Your task to perform on an android device: change the upload size in google photos Image 0: 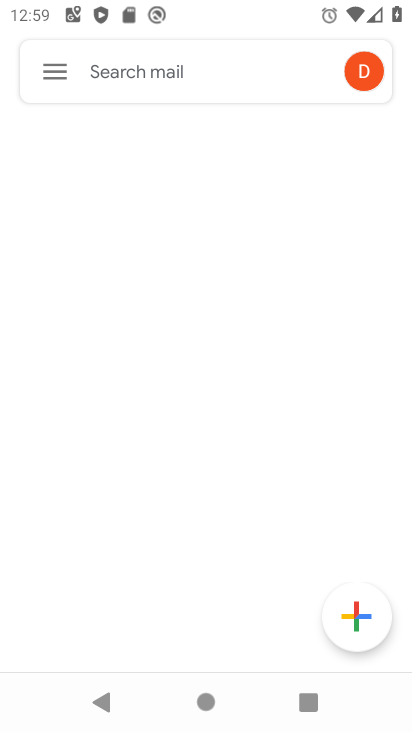
Step 0: press home button
Your task to perform on an android device: change the upload size in google photos Image 1: 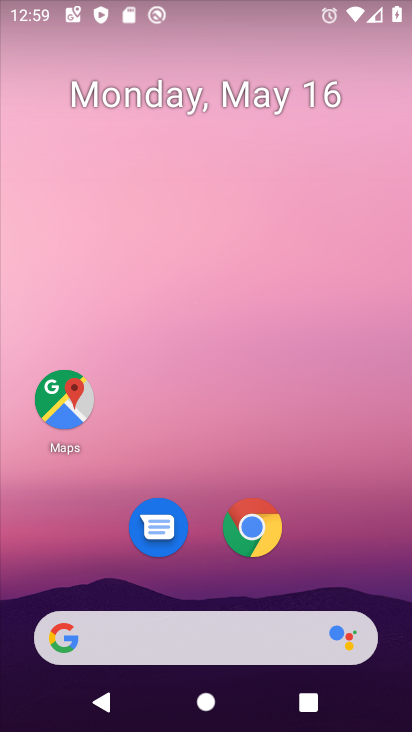
Step 1: drag from (286, 435) to (275, 42)
Your task to perform on an android device: change the upload size in google photos Image 2: 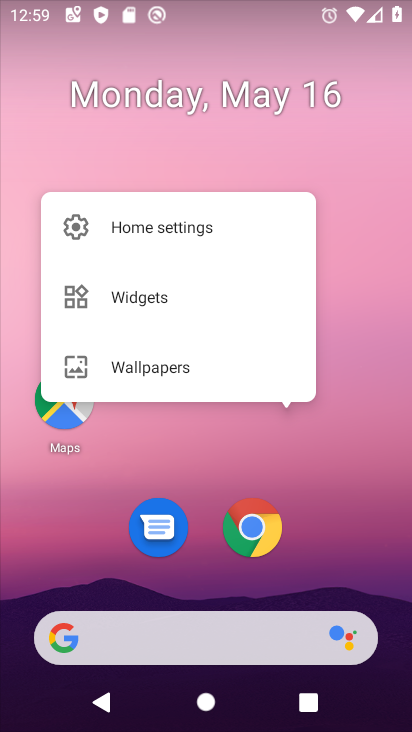
Step 2: click (337, 429)
Your task to perform on an android device: change the upload size in google photos Image 3: 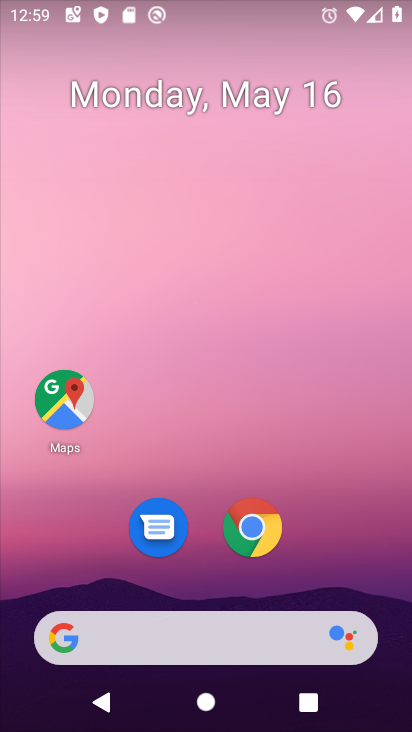
Step 3: drag from (337, 429) to (344, 68)
Your task to perform on an android device: change the upload size in google photos Image 4: 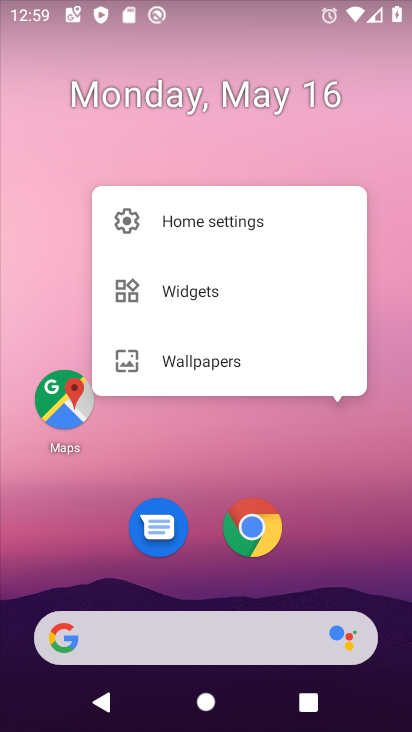
Step 4: click (247, 453)
Your task to perform on an android device: change the upload size in google photos Image 5: 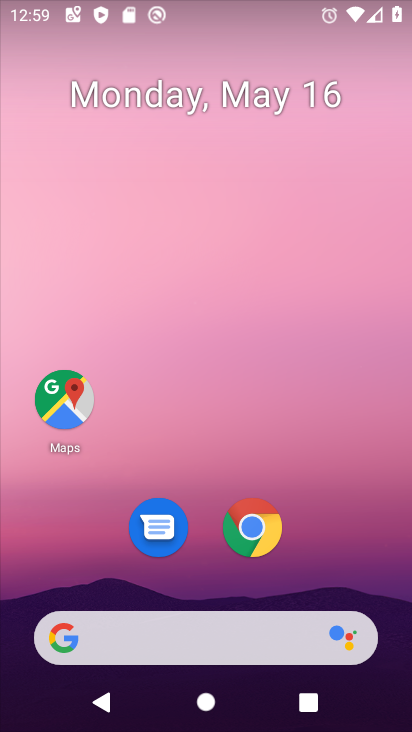
Step 5: drag from (247, 453) to (325, 80)
Your task to perform on an android device: change the upload size in google photos Image 6: 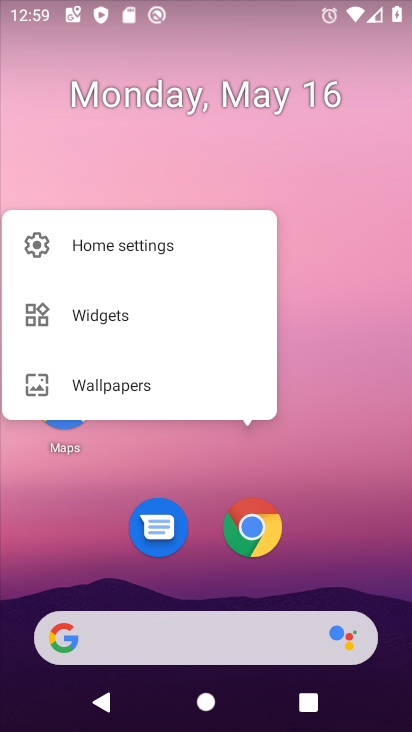
Step 6: drag from (345, 452) to (359, 112)
Your task to perform on an android device: change the upload size in google photos Image 7: 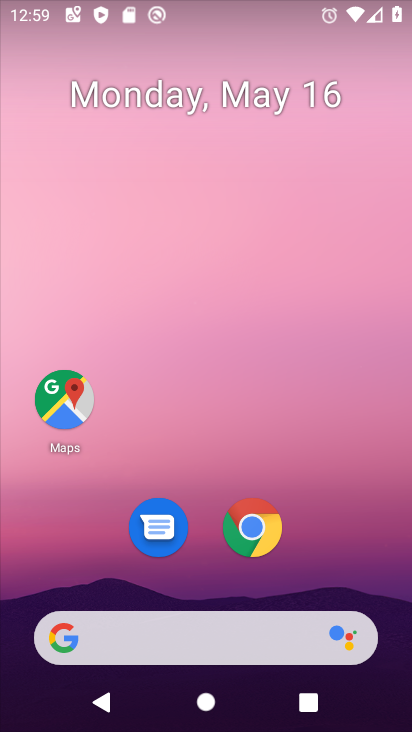
Step 7: drag from (348, 383) to (335, 120)
Your task to perform on an android device: change the upload size in google photos Image 8: 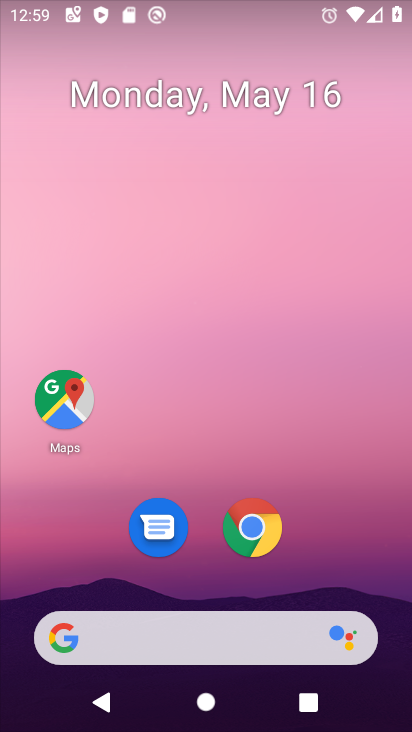
Step 8: drag from (336, 458) to (335, 50)
Your task to perform on an android device: change the upload size in google photos Image 9: 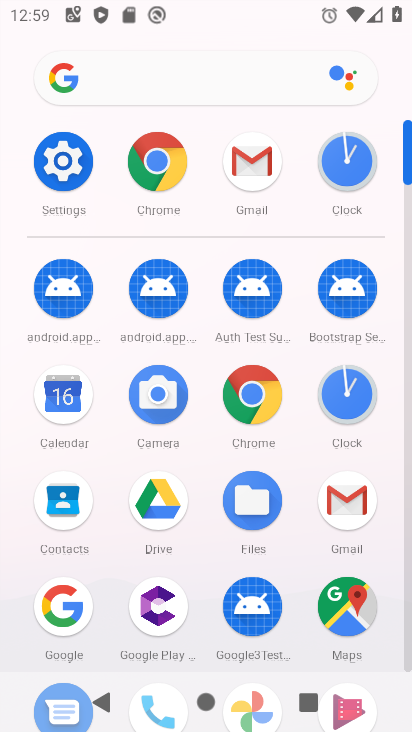
Step 9: click (407, 655)
Your task to perform on an android device: change the upload size in google photos Image 10: 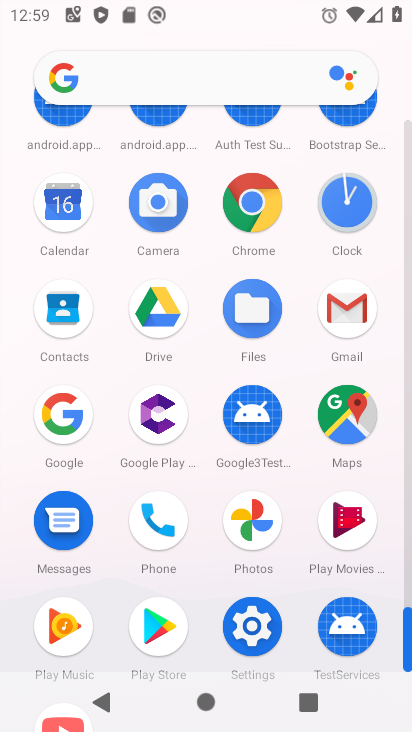
Step 10: click (261, 544)
Your task to perform on an android device: change the upload size in google photos Image 11: 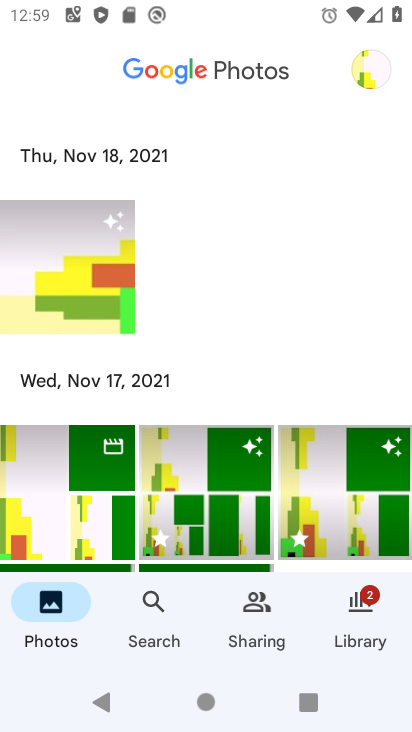
Step 11: click (363, 602)
Your task to perform on an android device: change the upload size in google photos Image 12: 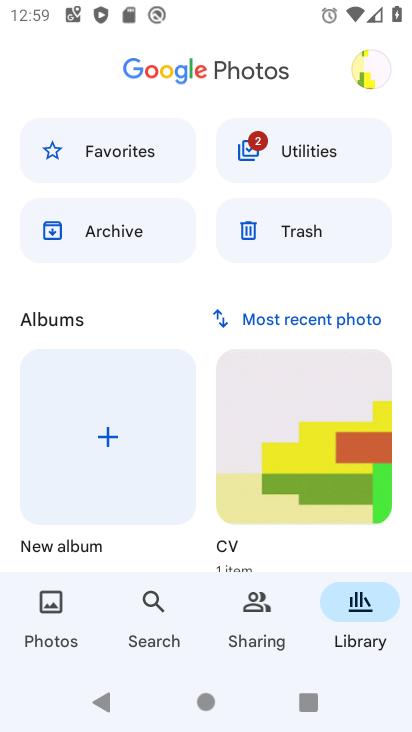
Step 12: click (363, 82)
Your task to perform on an android device: change the upload size in google photos Image 13: 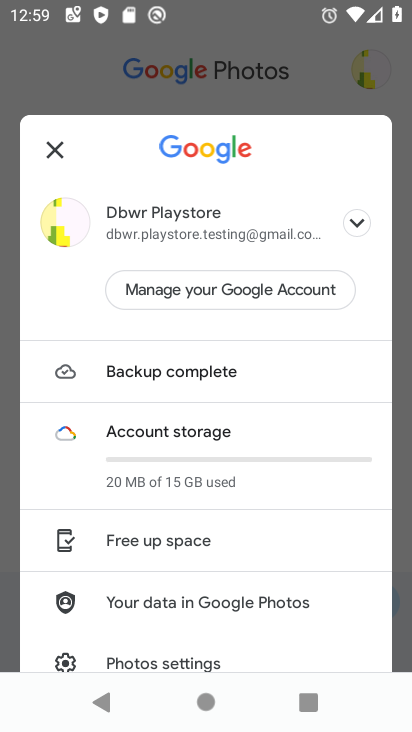
Step 13: drag from (243, 563) to (307, 258)
Your task to perform on an android device: change the upload size in google photos Image 14: 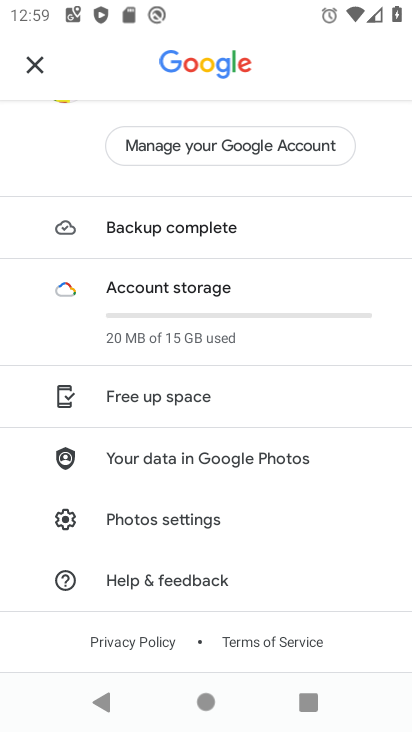
Step 14: click (214, 527)
Your task to perform on an android device: change the upload size in google photos Image 15: 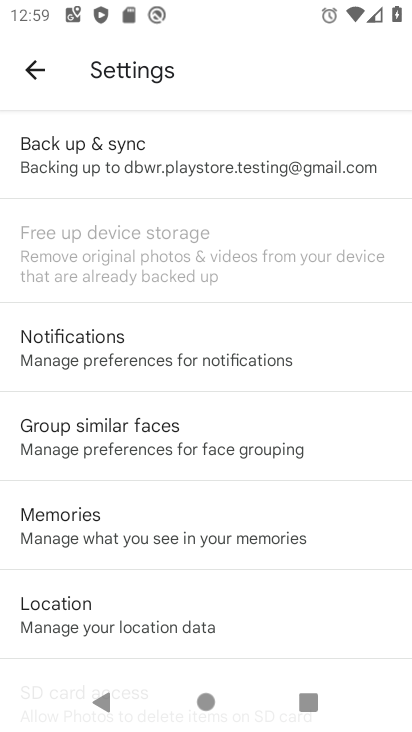
Step 15: click (110, 153)
Your task to perform on an android device: change the upload size in google photos Image 16: 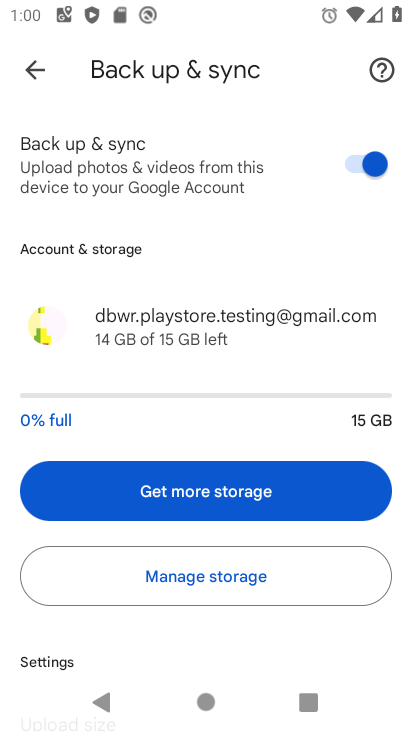
Step 16: click (140, 149)
Your task to perform on an android device: change the upload size in google photos Image 17: 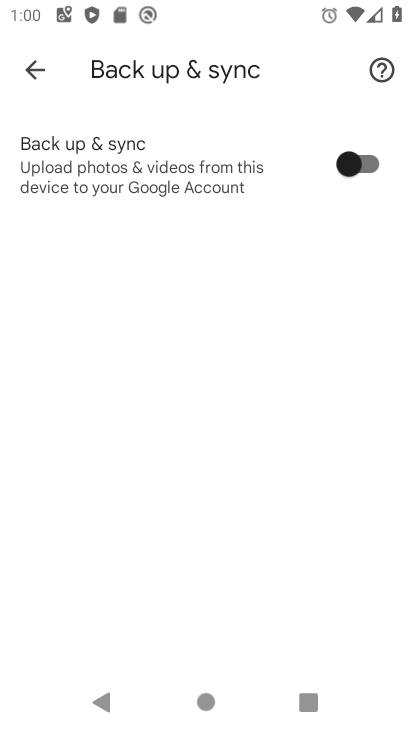
Step 17: click (140, 149)
Your task to perform on an android device: change the upload size in google photos Image 18: 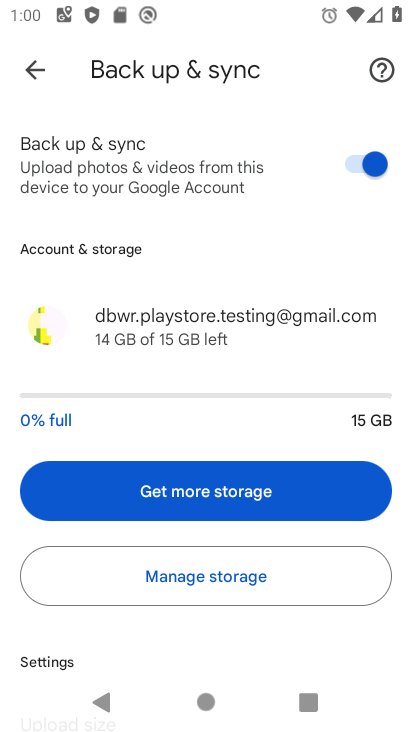
Step 18: task complete